Your task to perform on an android device: Go to sound settings Image 0: 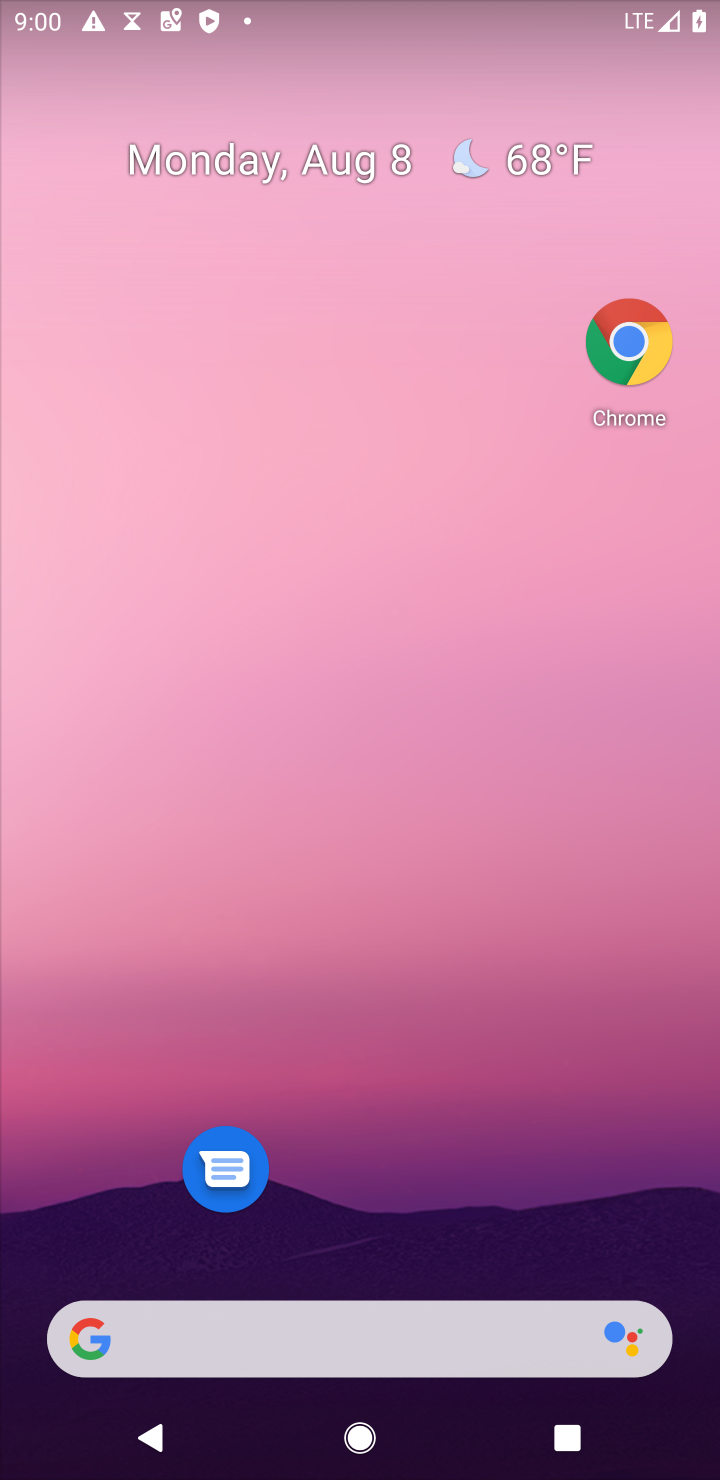
Step 0: press back button
Your task to perform on an android device: Go to sound settings Image 1: 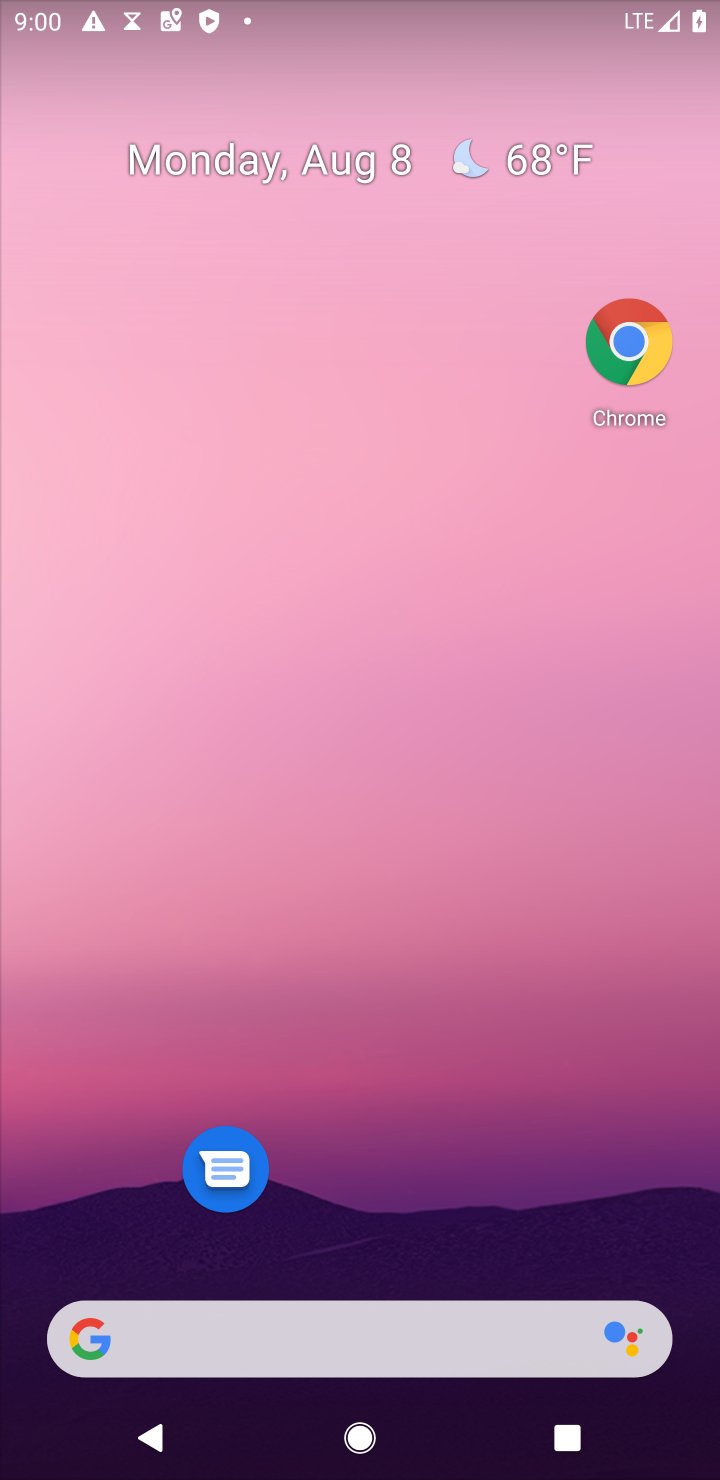
Step 1: drag from (342, 1156) to (425, 12)
Your task to perform on an android device: Go to sound settings Image 2: 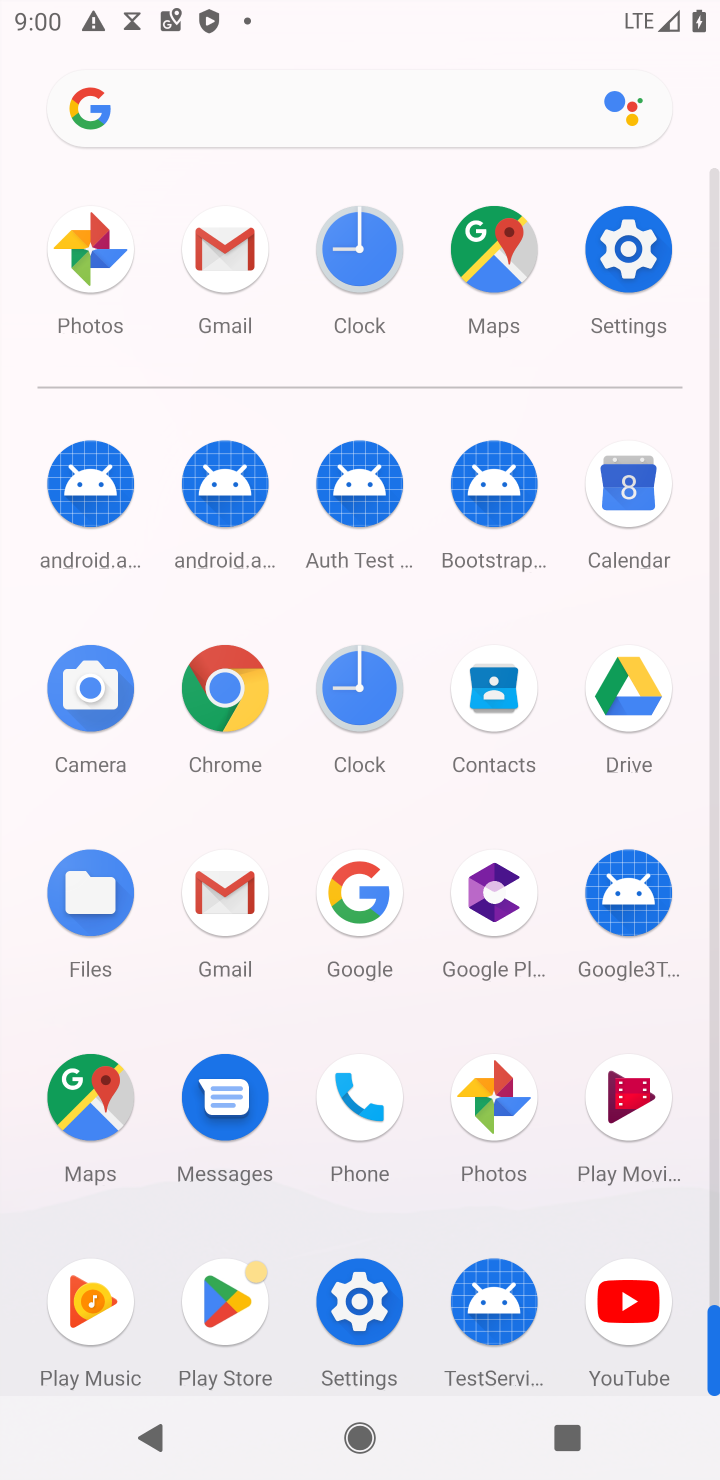
Step 2: click (629, 252)
Your task to perform on an android device: Go to sound settings Image 3: 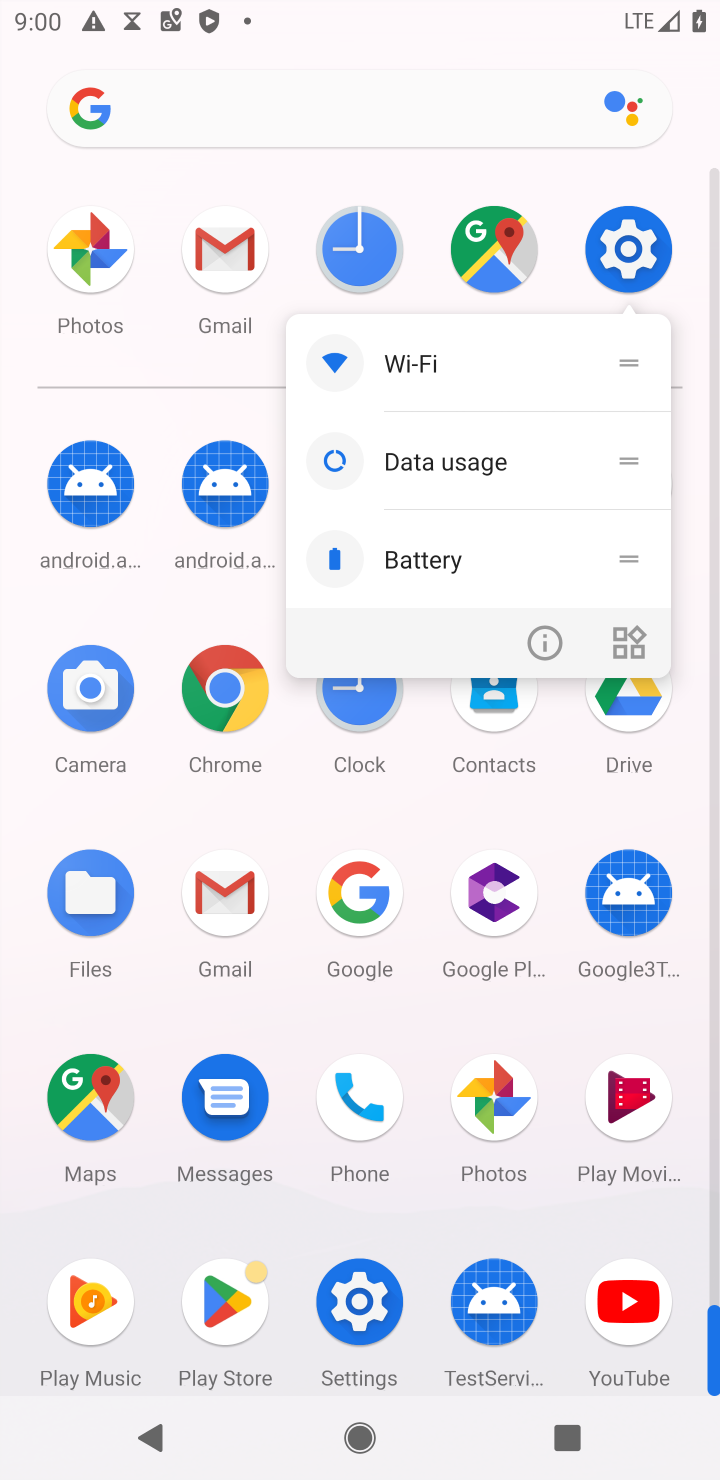
Step 3: click (636, 235)
Your task to perform on an android device: Go to sound settings Image 4: 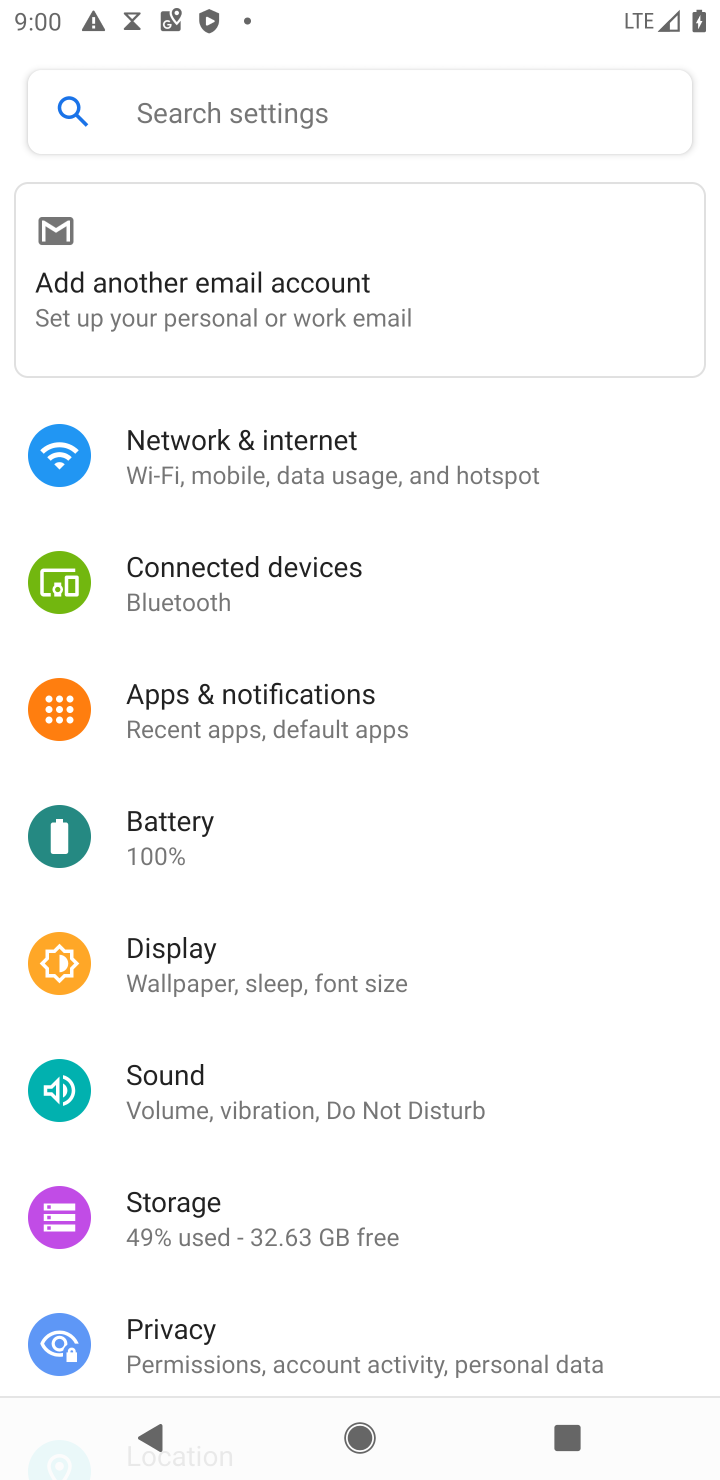
Step 4: click (183, 1085)
Your task to perform on an android device: Go to sound settings Image 5: 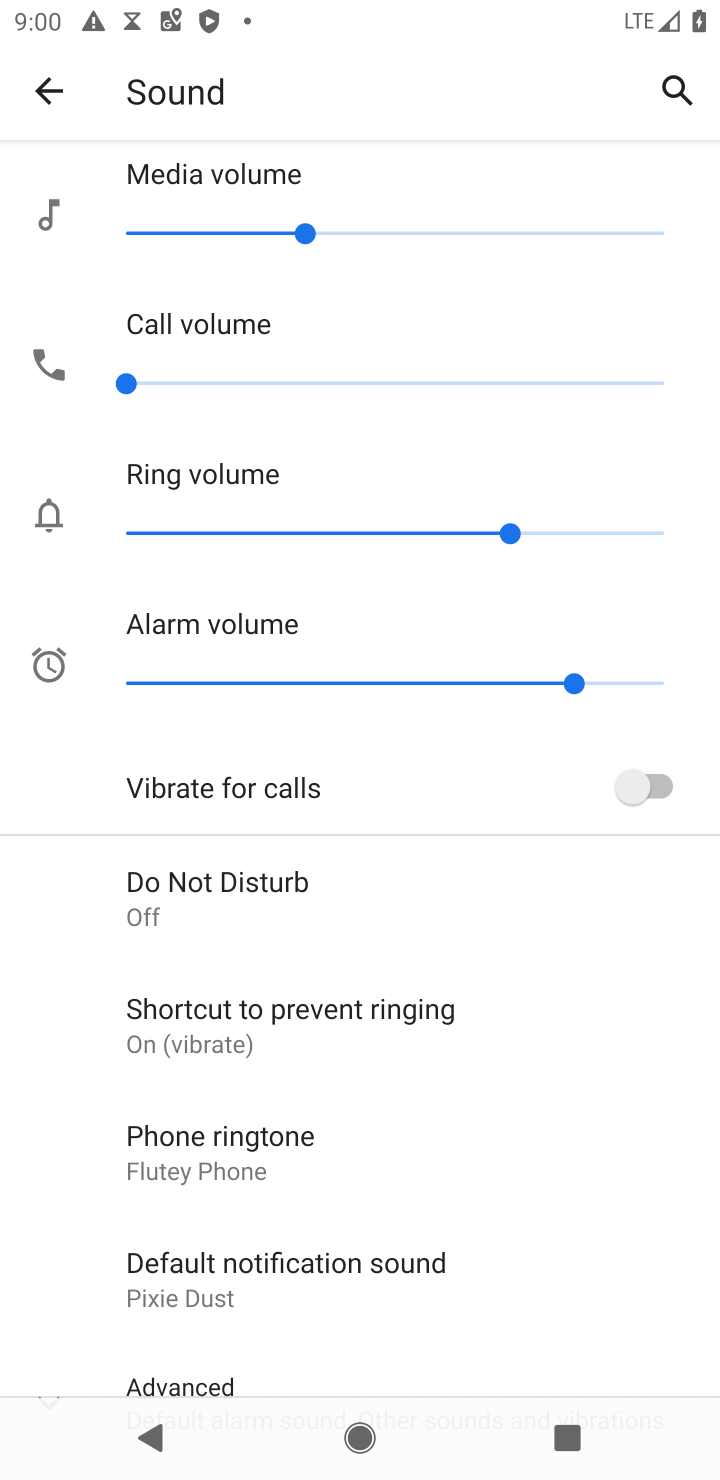
Step 5: task complete